Your task to perform on an android device: turn on data saver in the chrome app Image 0: 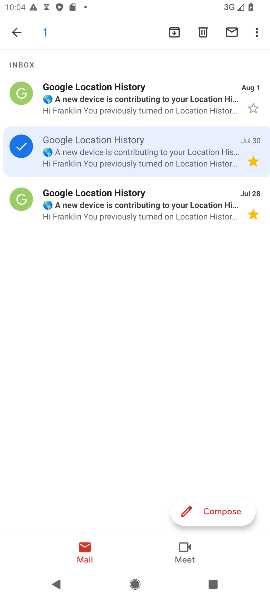
Step 0: press home button
Your task to perform on an android device: turn on data saver in the chrome app Image 1: 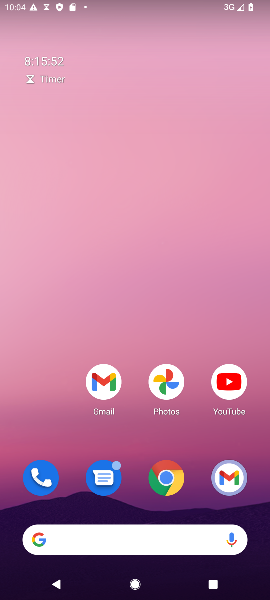
Step 1: drag from (193, 353) to (152, 14)
Your task to perform on an android device: turn on data saver in the chrome app Image 2: 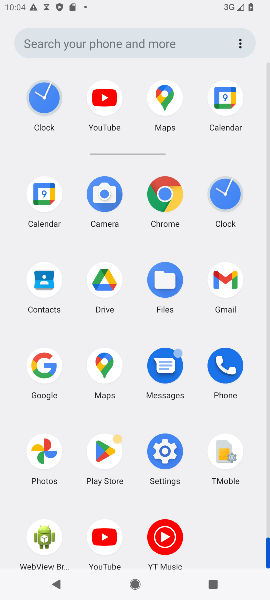
Step 2: click (171, 188)
Your task to perform on an android device: turn on data saver in the chrome app Image 3: 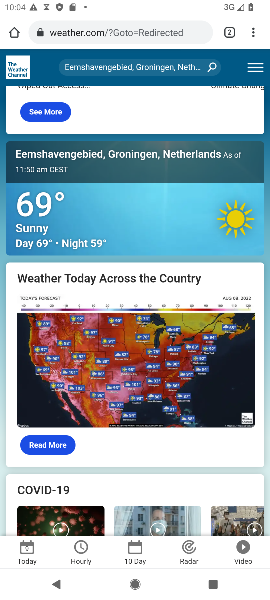
Step 3: click (256, 35)
Your task to perform on an android device: turn on data saver in the chrome app Image 4: 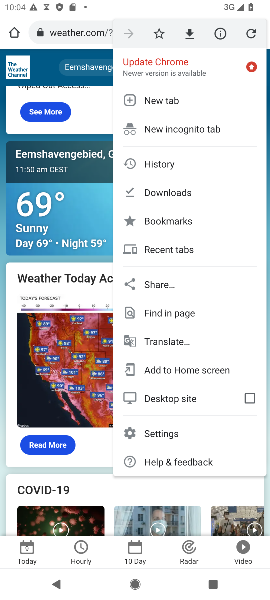
Step 4: click (217, 428)
Your task to perform on an android device: turn on data saver in the chrome app Image 5: 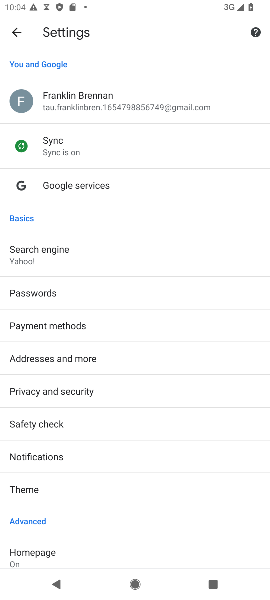
Step 5: drag from (116, 517) to (79, 134)
Your task to perform on an android device: turn on data saver in the chrome app Image 6: 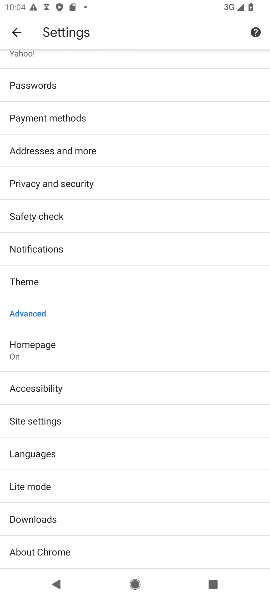
Step 6: click (106, 491)
Your task to perform on an android device: turn on data saver in the chrome app Image 7: 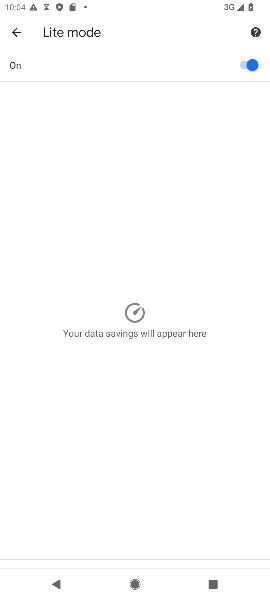
Step 7: task complete